Your task to perform on an android device: Open calendar and show me the fourth week of next month Image 0: 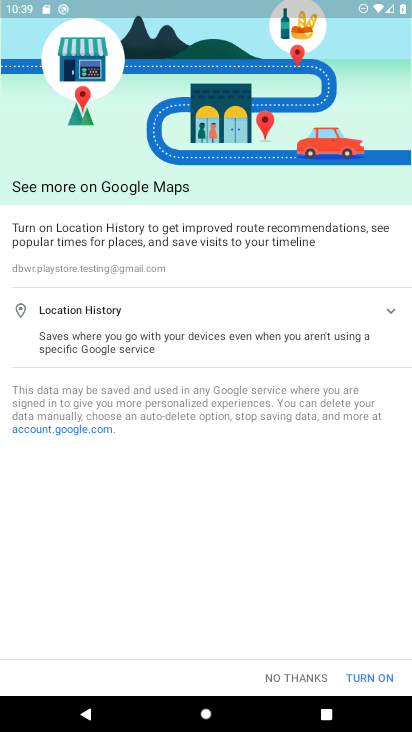
Step 0: press home button
Your task to perform on an android device: Open calendar and show me the fourth week of next month Image 1: 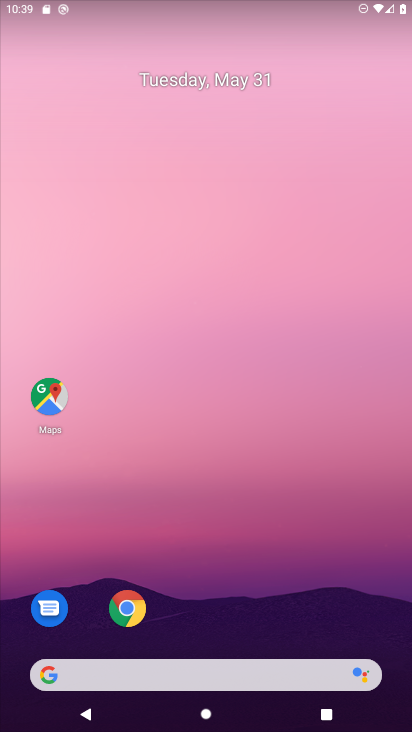
Step 1: drag from (346, 585) to (363, 69)
Your task to perform on an android device: Open calendar and show me the fourth week of next month Image 2: 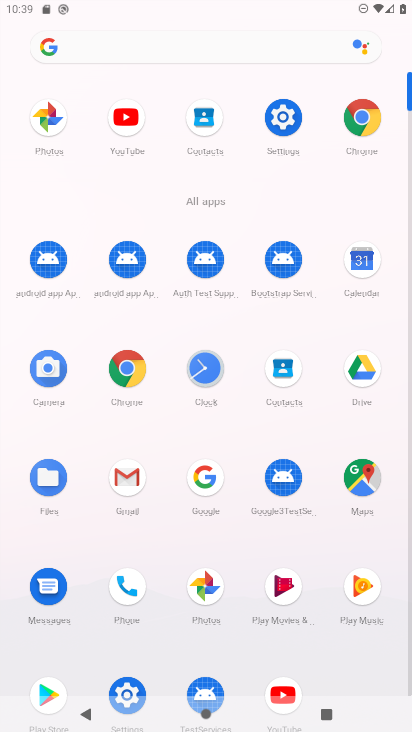
Step 2: click (366, 270)
Your task to perform on an android device: Open calendar and show me the fourth week of next month Image 3: 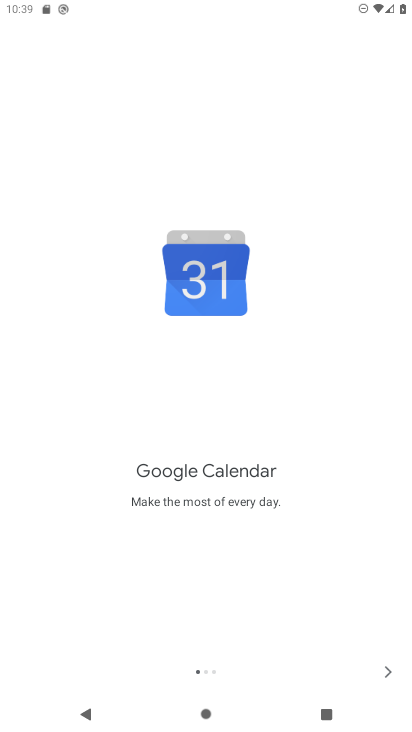
Step 3: click (382, 681)
Your task to perform on an android device: Open calendar and show me the fourth week of next month Image 4: 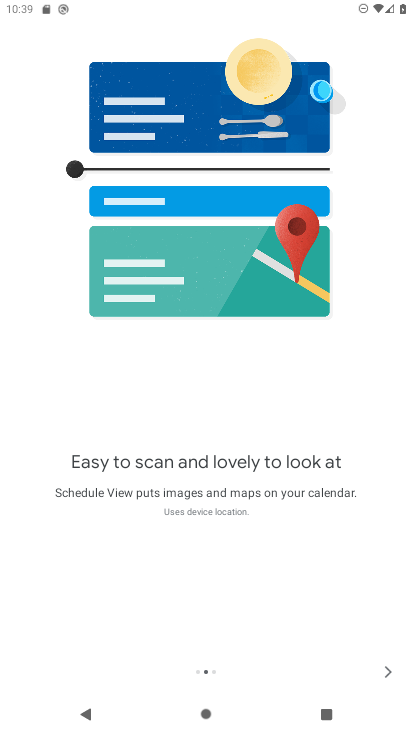
Step 4: click (374, 665)
Your task to perform on an android device: Open calendar and show me the fourth week of next month Image 5: 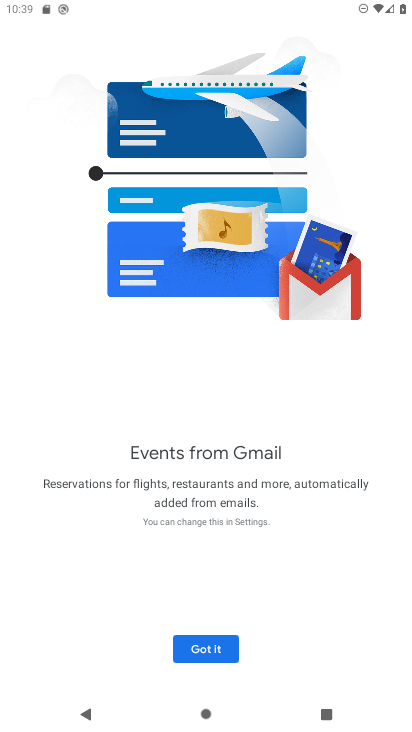
Step 5: click (234, 654)
Your task to perform on an android device: Open calendar and show me the fourth week of next month Image 6: 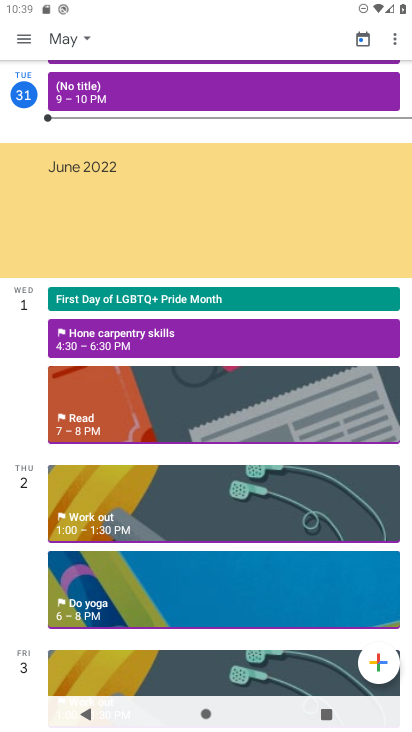
Step 6: click (72, 38)
Your task to perform on an android device: Open calendar and show me the fourth week of next month Image 7: 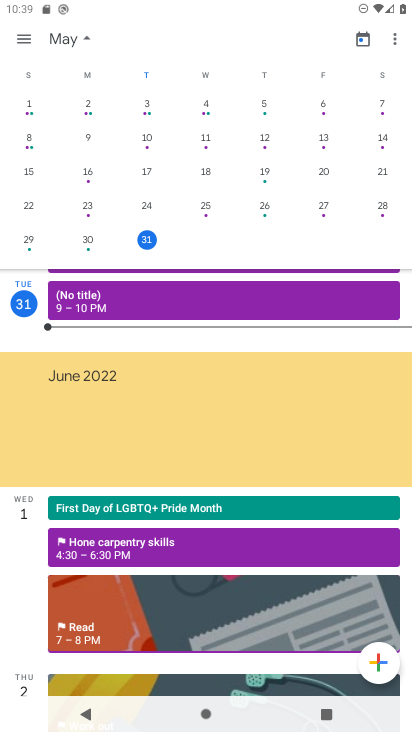
Step 7: drag from (295, 161) to (48, 169)
Your task to perform on an android device: Open calendar and show me the fourth week of next month Image 8: 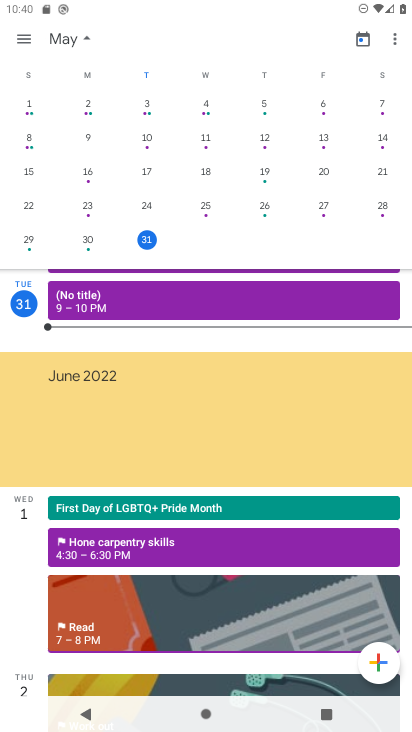
Step 8: drag from (345, 155) to (13, 160)
Your task to perform on an android device: Open calendar and show me the fourth week of next month Image 9: 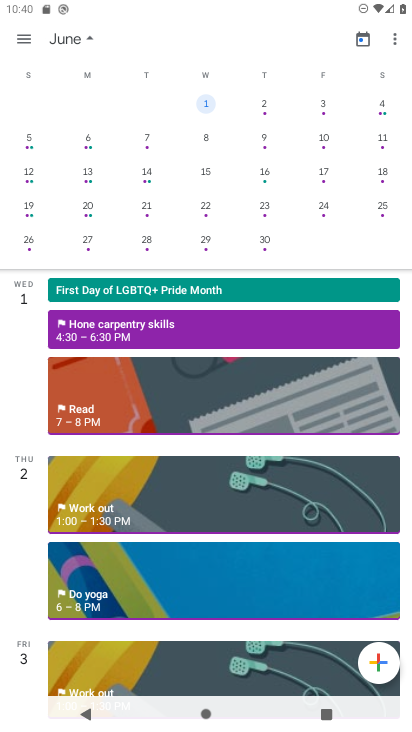
Step 9: click (26, 203)
Your task to perform on an android device: Open calendar and show me the fourth week of next month Image 10: 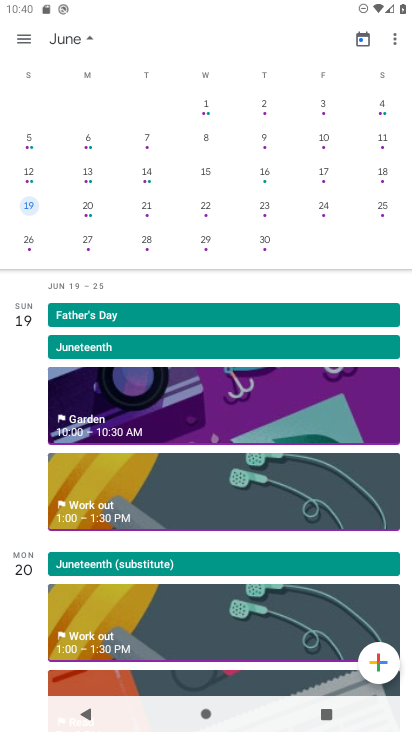
Step 10: task complete